Your task to perform on an android device: check storage Image 0: 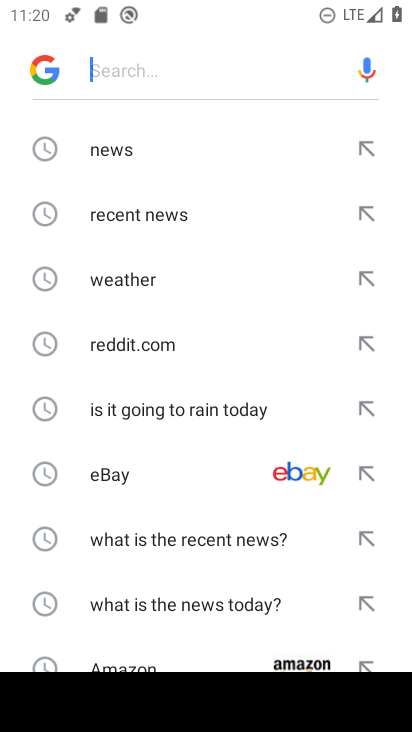
Step 0: press home button
Your task to perform on an android device: check storage Image 1: 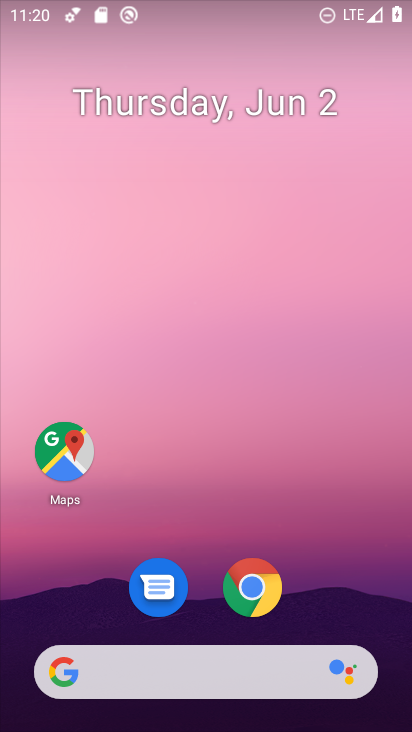
Step 1: drag from (351, 594) to (279, 183)
Your task to perform on an android device: check storage Image 2: 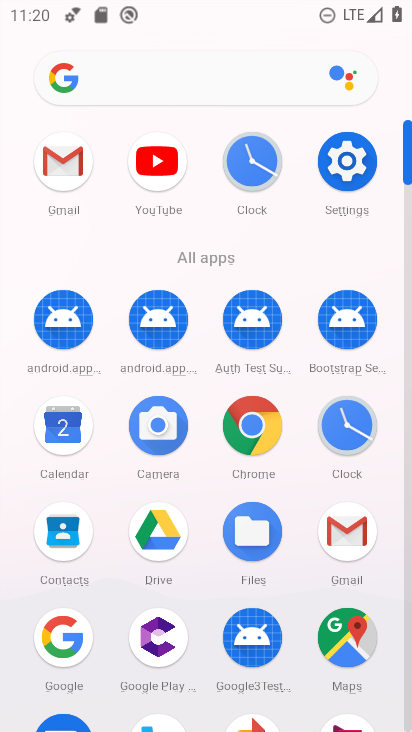
Step 2: click (351, 179)
Your task to perform on an android device: check storage Image 3: 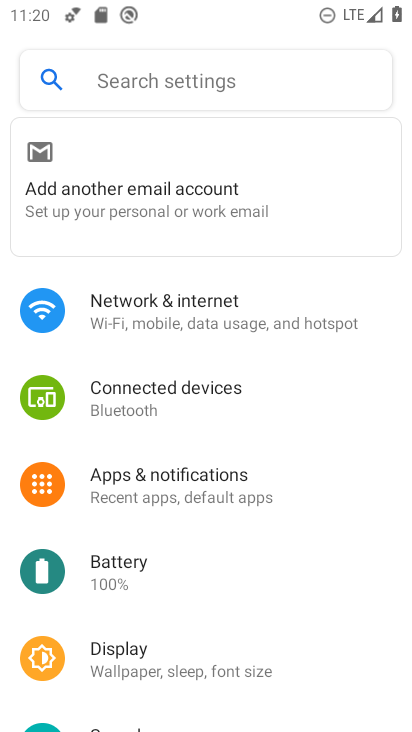
Step 3: drag from (183, 666) to (177, 293)
Your task to perform on an android device: check storage Image 4: 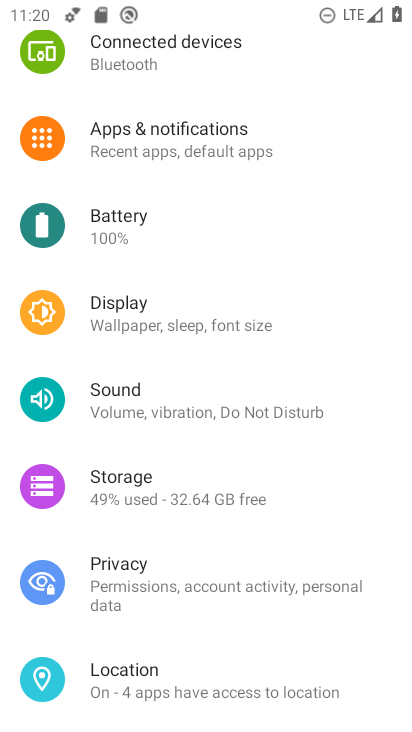
Step 4: click (184, 484)
Your task to perform on an android device: check storage Image 5: 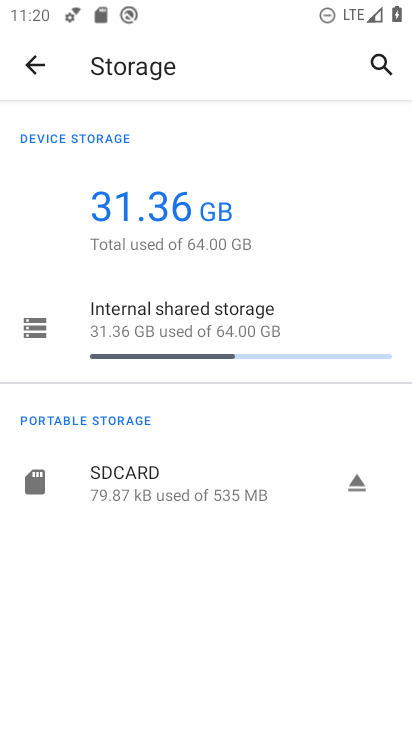
Step 5: task complete